Your task to perform on an android device: change the clock display to digital Image 0: 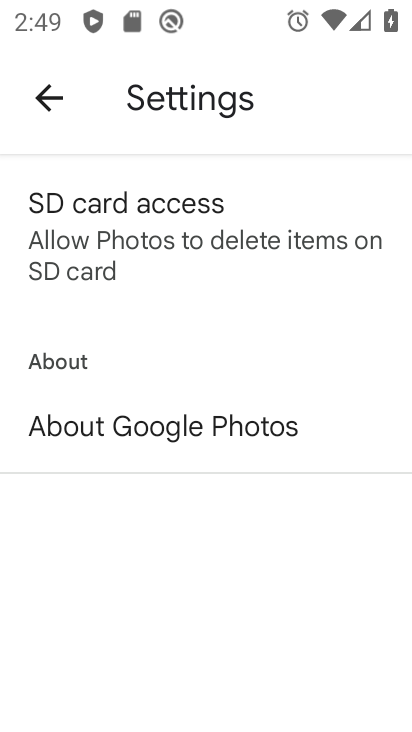
Step 0: press home button
Your task to perform on an android device: change the clock display to digital Image 1: 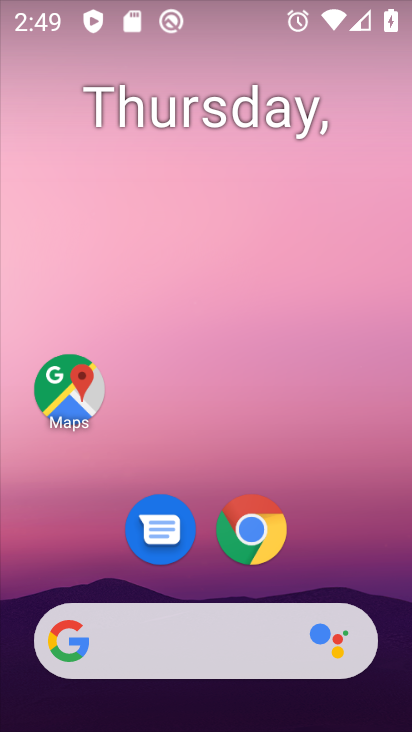
Step 1: drag from (230, 627) to (309, 72)
Your task to perform on an android device: change the clock display to digital Image 2: 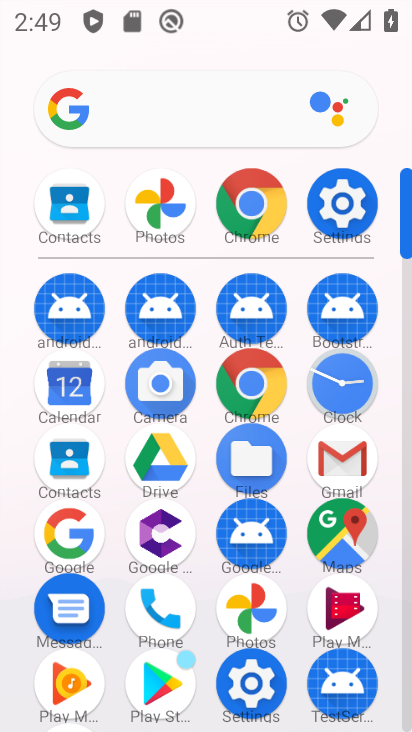
Step 2: click (328, 380)
Your task to perform on an android device: change the clock display to digital Image 3: 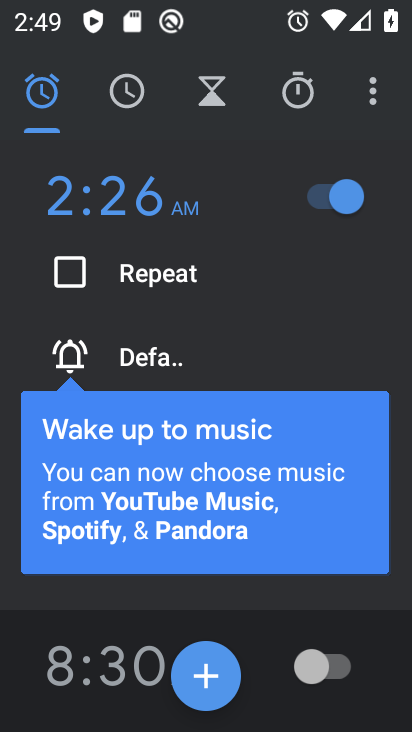
Step 3: click (364, 83)
Your task to perform on an android device: change the clock display to digital Image 4: 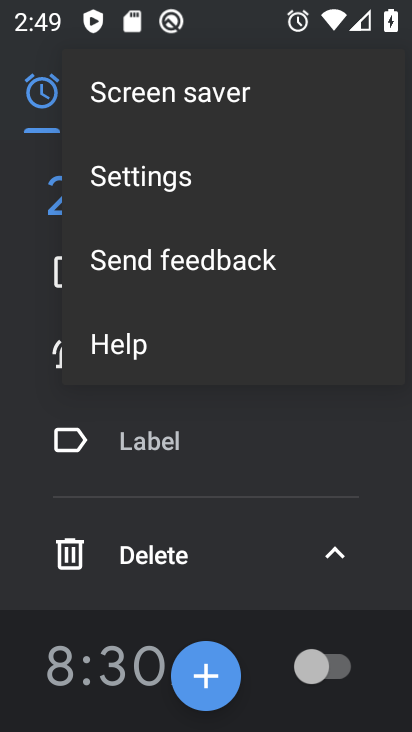
Step 4: click (215, 169)
Your task to perform on an android device: change the clock display to digital Image 5: 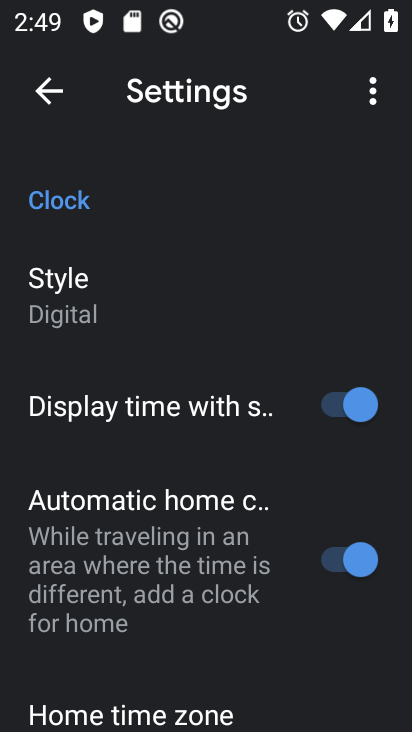
Step 5: task complete